Your task to perform on an android device: toggle notifications settings in the gmail app Image 0: 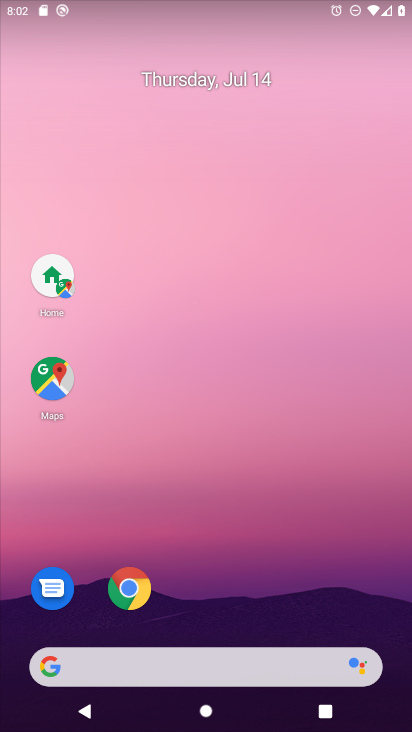
Step 0: drag from (23, 710) to (379, 694)
Your task to perform on an android device: toggle notifications settings in the gmail app Image 1: 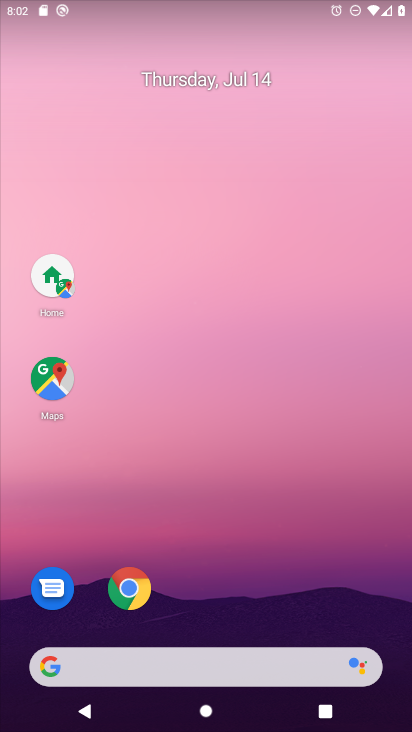
Step 1: click (132, 485)
Your task to perform on an android device: toggle notifications settings in the gmail app Image 2: 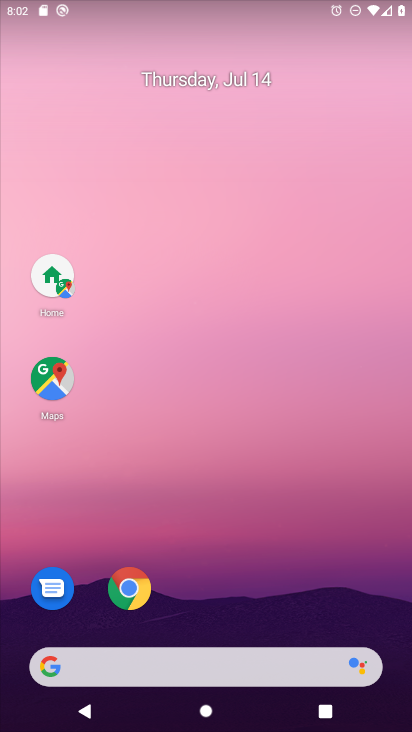
Step 2: drag from (12, 710) to (249, 98)
Your task to perform on an android device: toggle notifications settings in the gmail app Image 3: 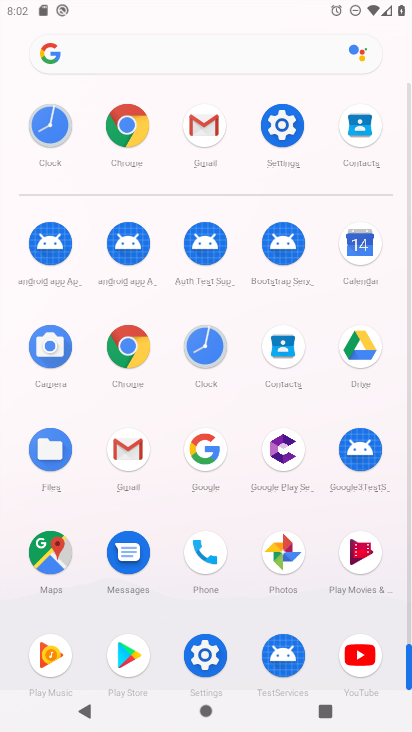
Step 3: click (138, 462)
Your task to perform on an android device: toggle notifications settings in the gmail app Image 4: 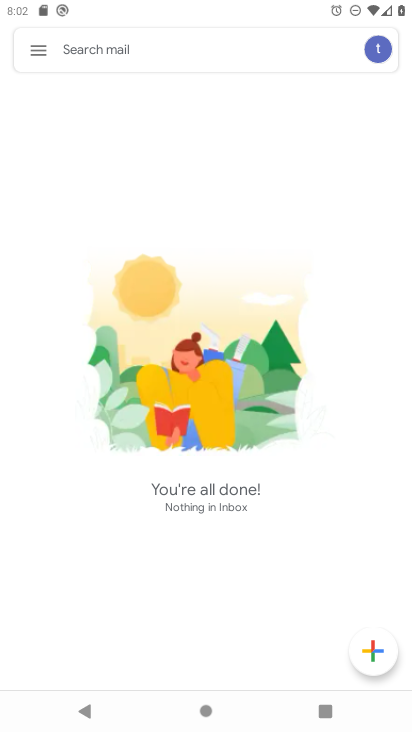
Step 4: click (39, 46)
Your task to perform on an android device: toggle notifications settings in the gmail app Image 5: 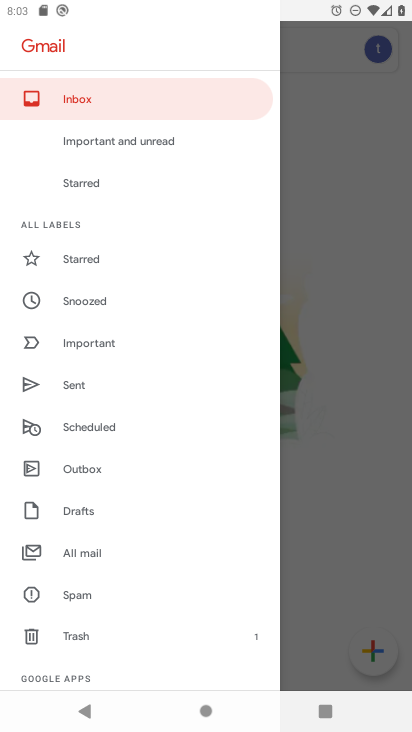
Step 5: drag from (106, 658) to (166, 255)
Your task to perform on an android device: toggle notifications settings in the gmail app Image 6: 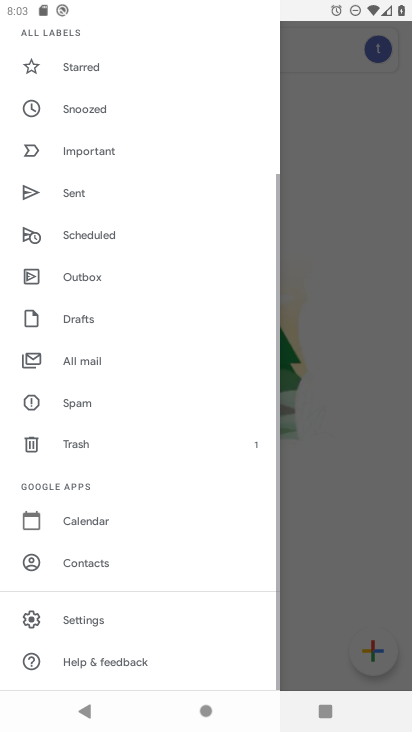
Step 6: click (67, 612)
Your task to perform on an android device: toggle notifications settings in the gmail app Image 7: 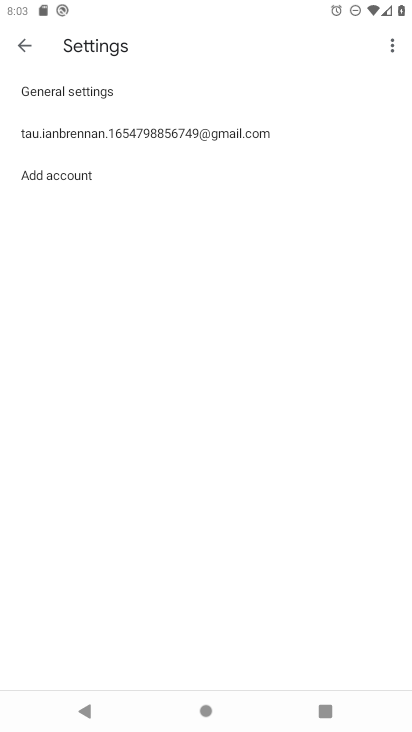
Step 7: click (194, 127)
Your task to perform on an android device: toggle notifications settings in the gmail app Image 8: 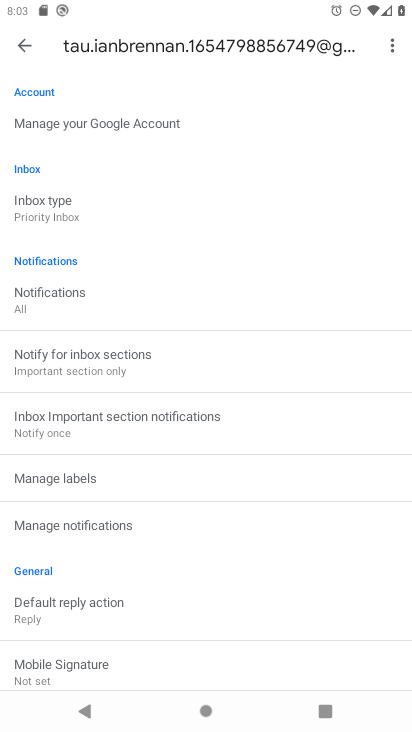
Step 8: click (82, 263)
Your task to perform on an android device: toggle notifications settings in the gmail app Image 9: 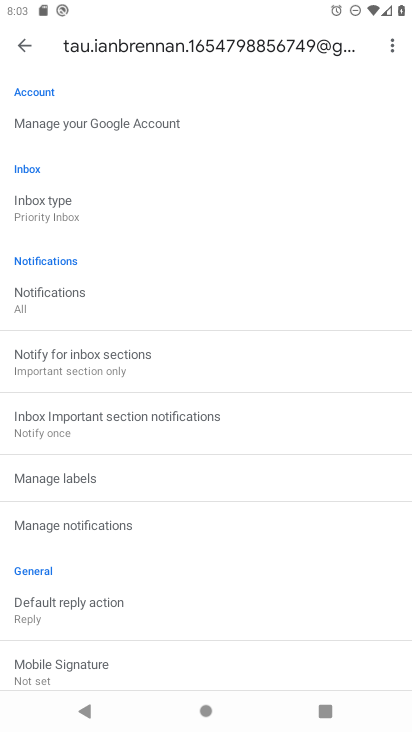
Step 9: click (81, 291)
Your task to perform on an android device: toggle notifications settings in the gmail app Image 10: 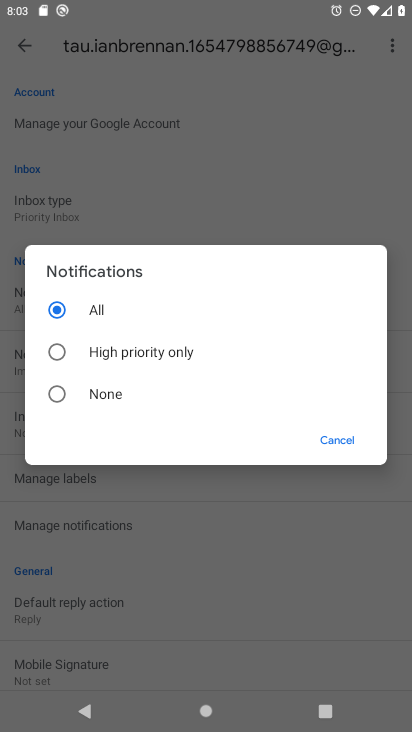
Step 10: click (337, 435)
Your task to perform on an android device: toggle notifications settings in the gmail app Image 11: 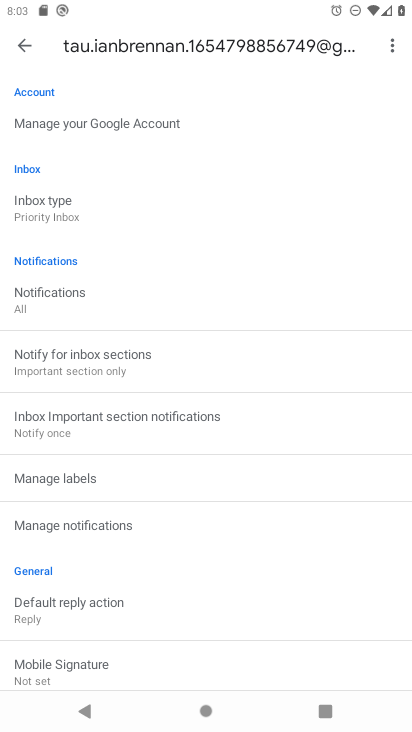
Step 11: click (81, 431)
Your task to perform on an android device: toggle notifications settings in the gmail app Image 12: 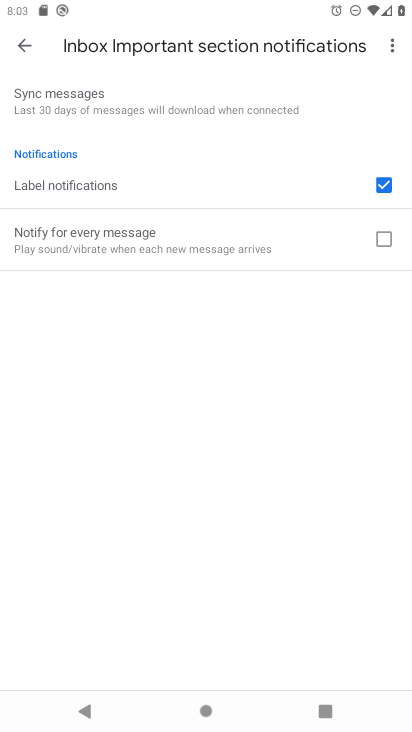
Step 12: task complete